Your task to perform on an android device: Search for hotels in Buenos aires Image 0: 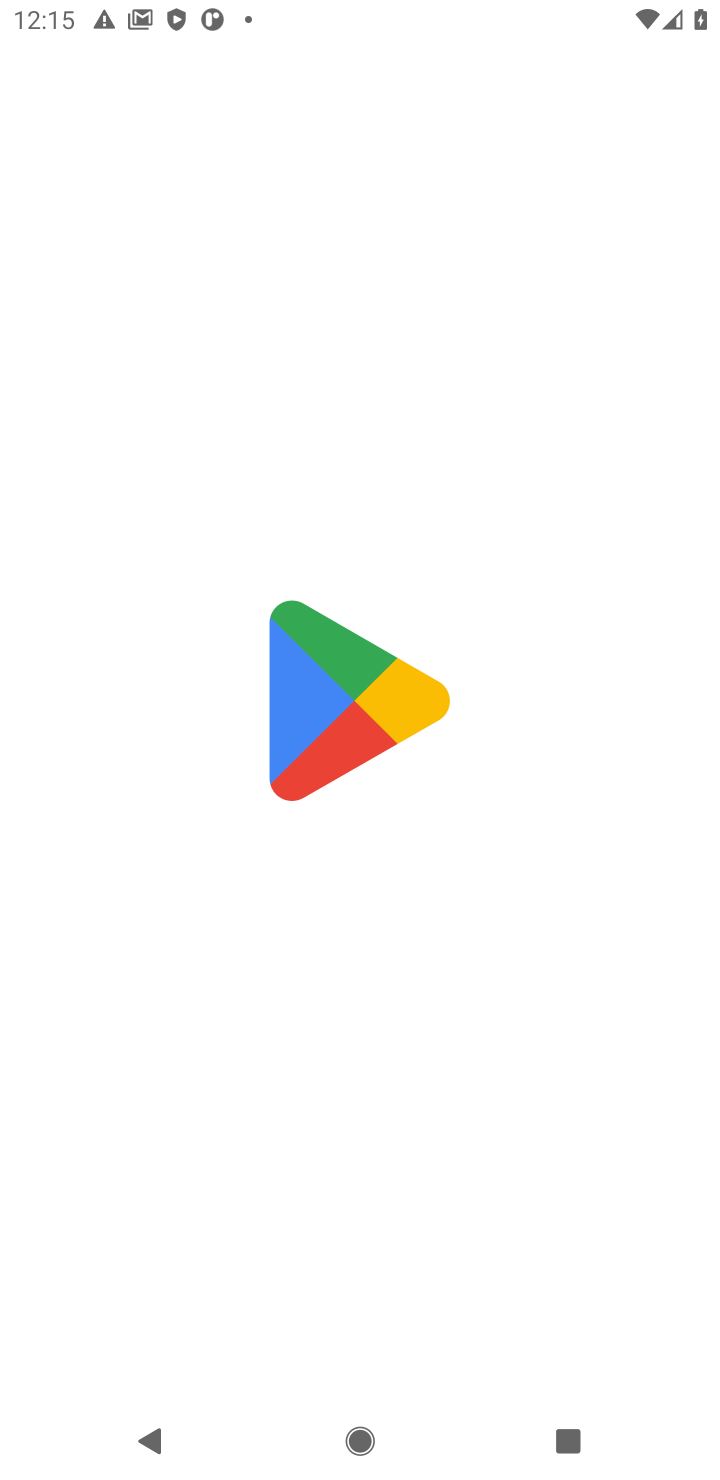
Step 0: press home button
Your task to perform on an android device: Search for hotels in Buenos aires Image 1: 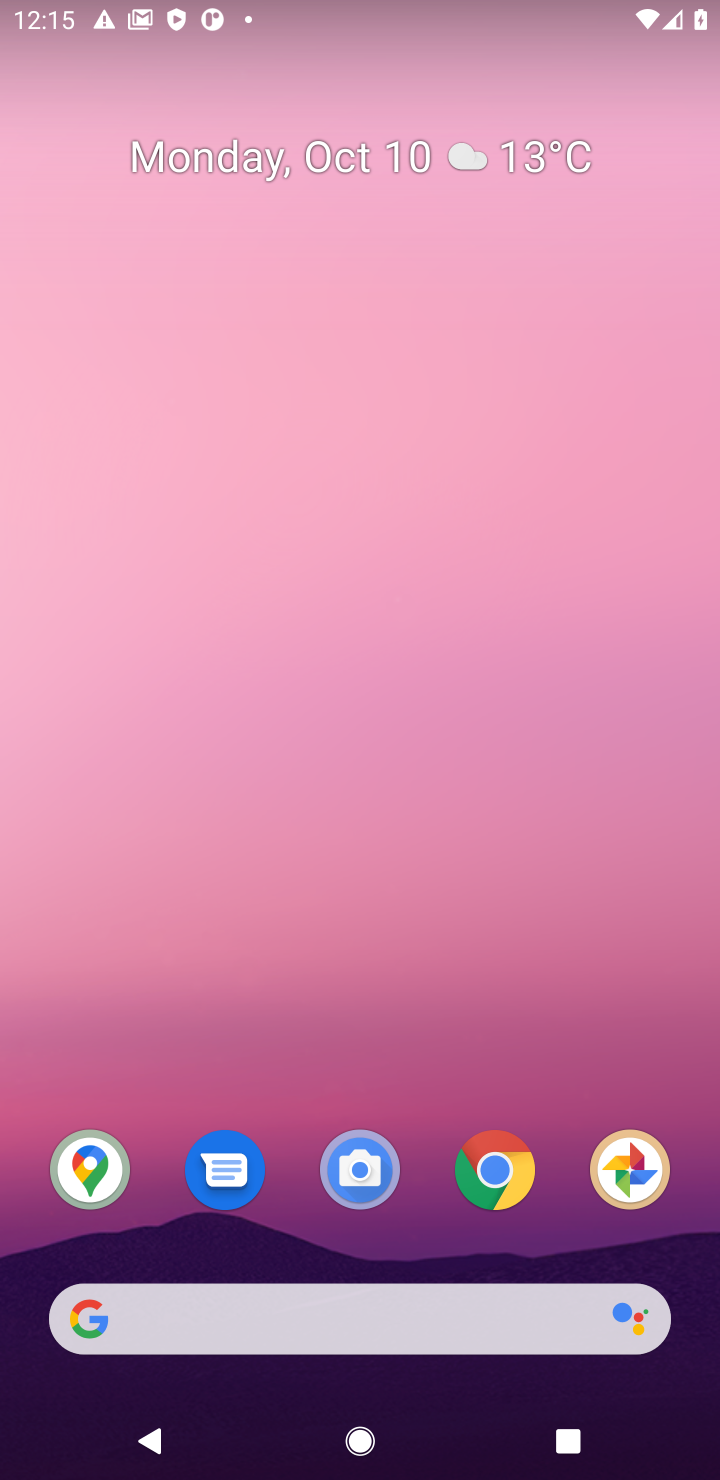
Step 1: click (495, 1166)
Your task to perform on an android device: Search for hotels in Buenos aires Image 2: 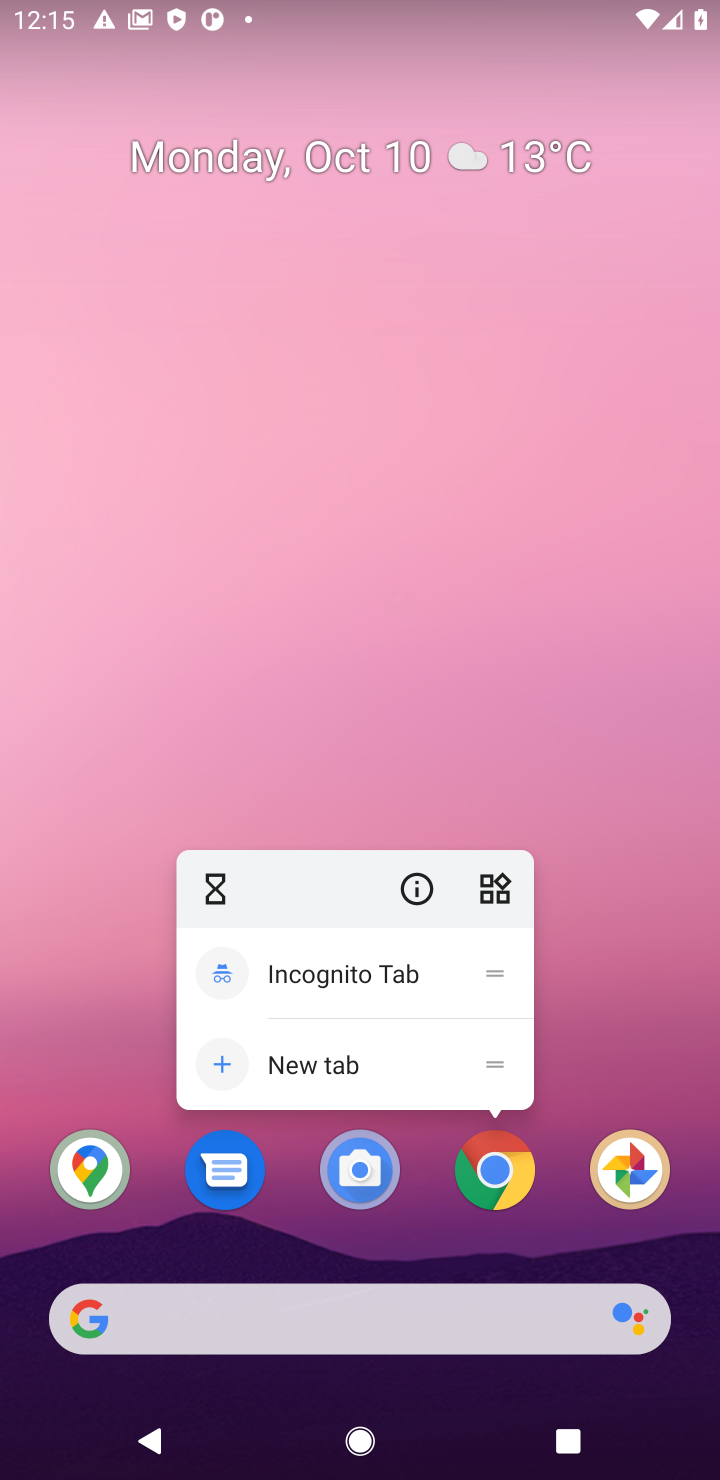
Step 2: click (497, 1173)
Your task to perform on an android device: Search for hotels in Buenos aires Image 3: 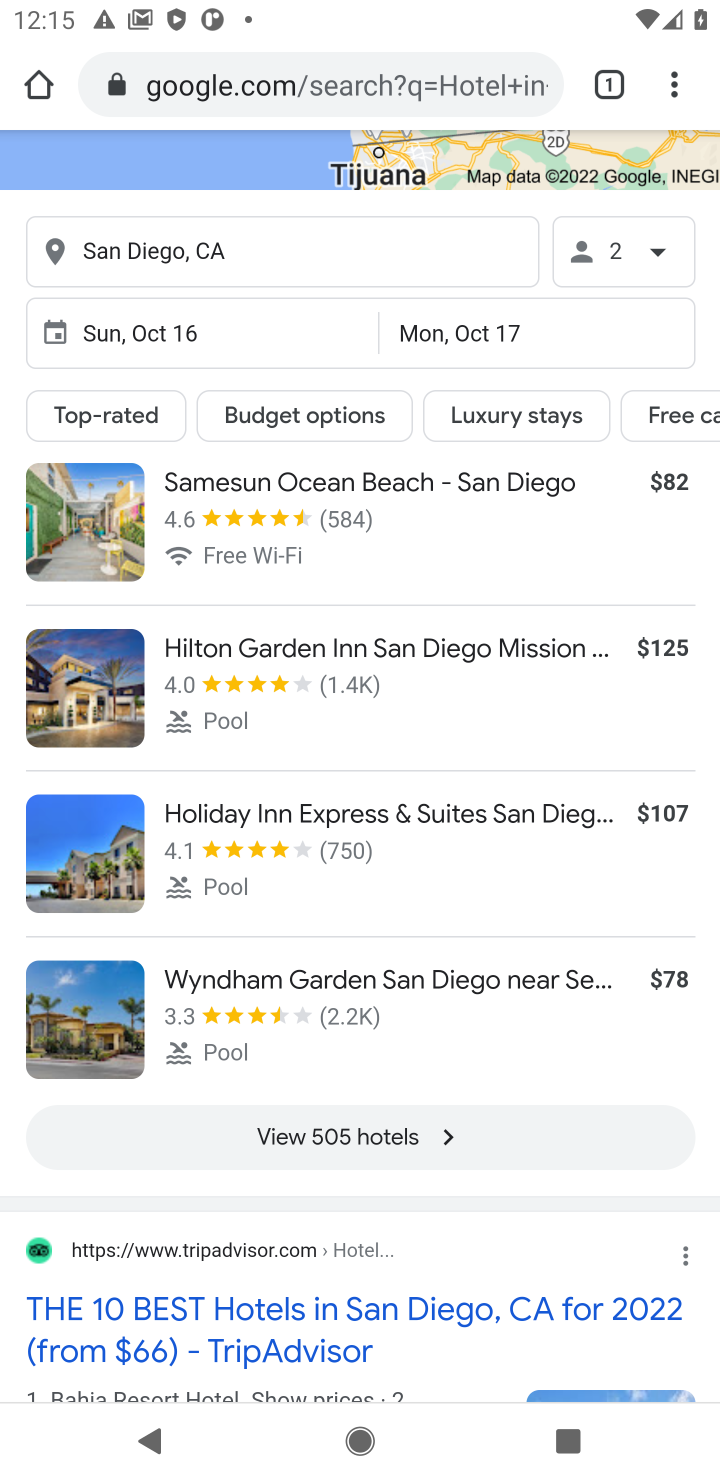
Step 3: click (466, 94)
Your task to perform on an android device: Search for hotels in Buenos aires Image 4: 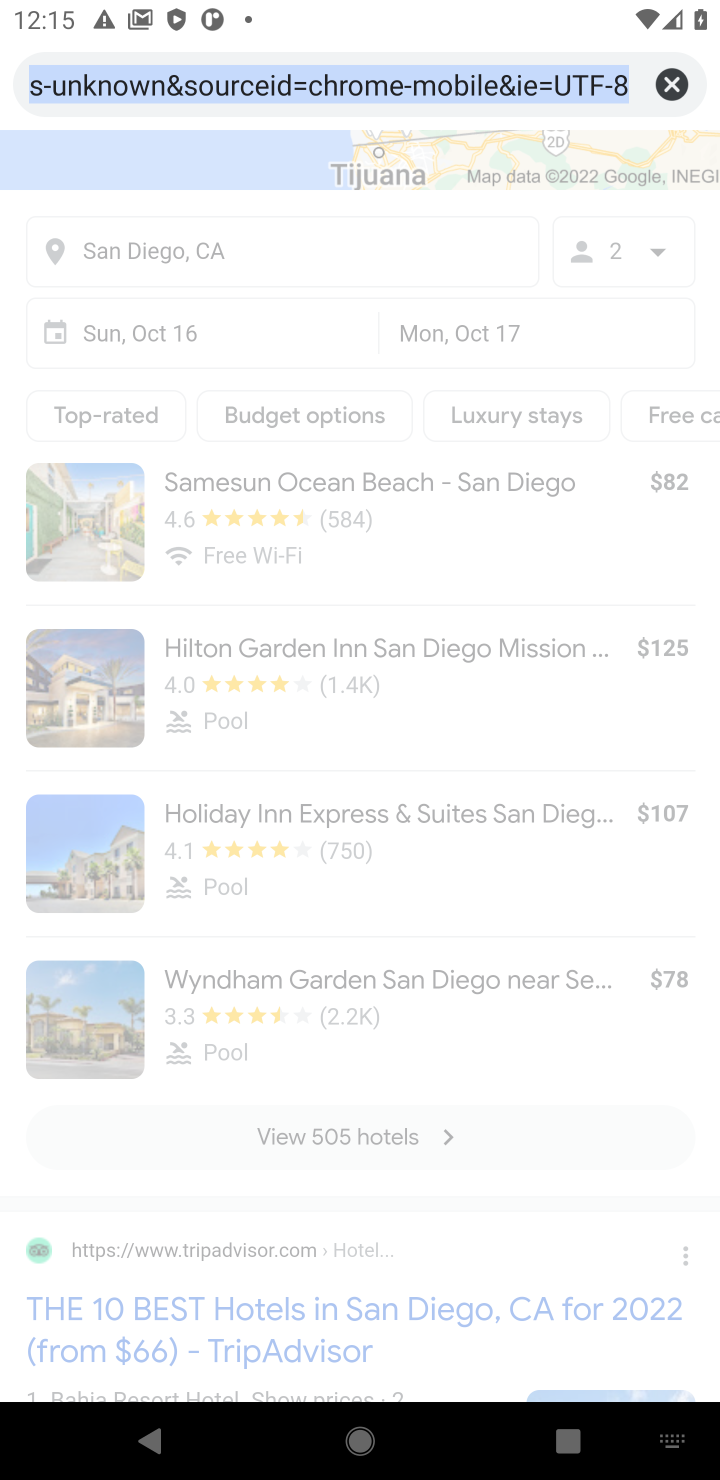
Step 4: click (667, 87)
Your task to perform on an android device: Search for hotels in Buenos aires Image 5: 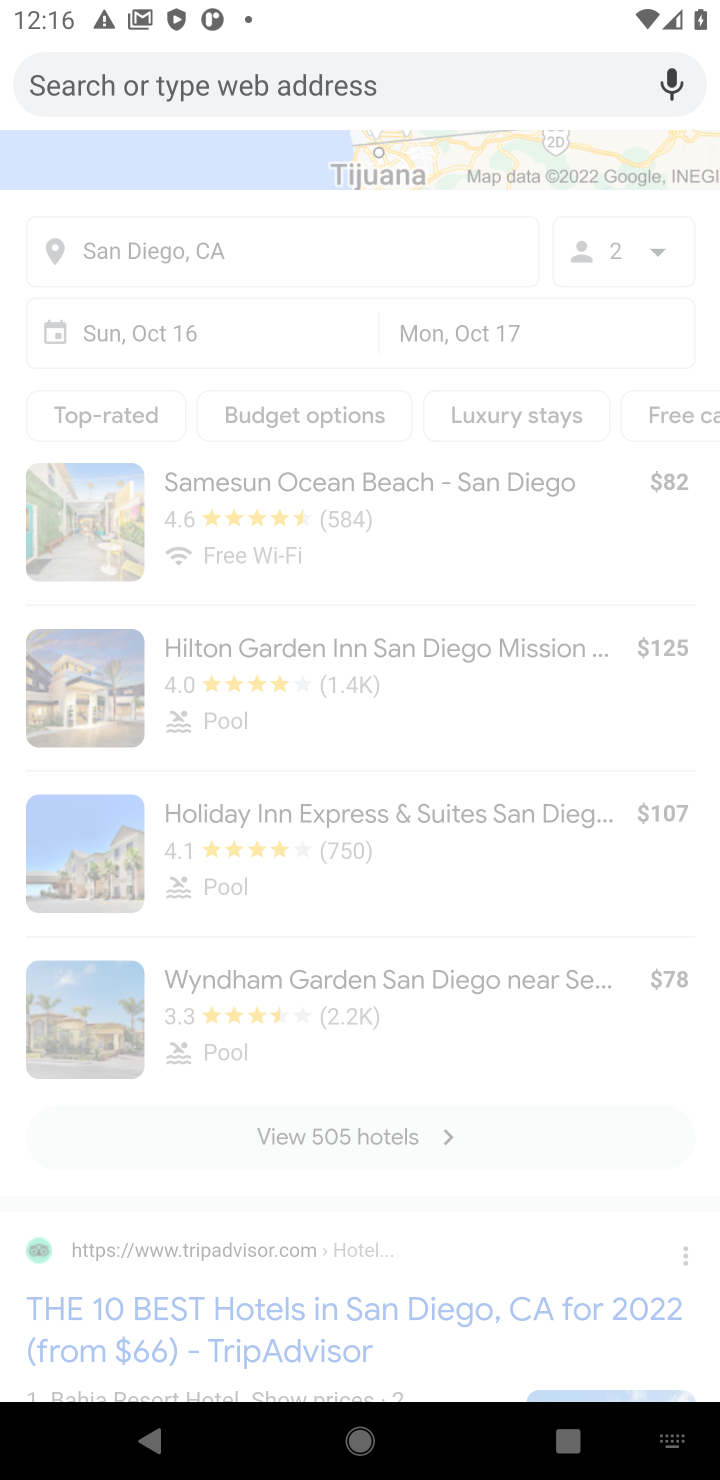
Step 5: type "Hotel in Buenos aires"
Your task to perform on an android device: Search for hotels in Buenos aires Image 6: 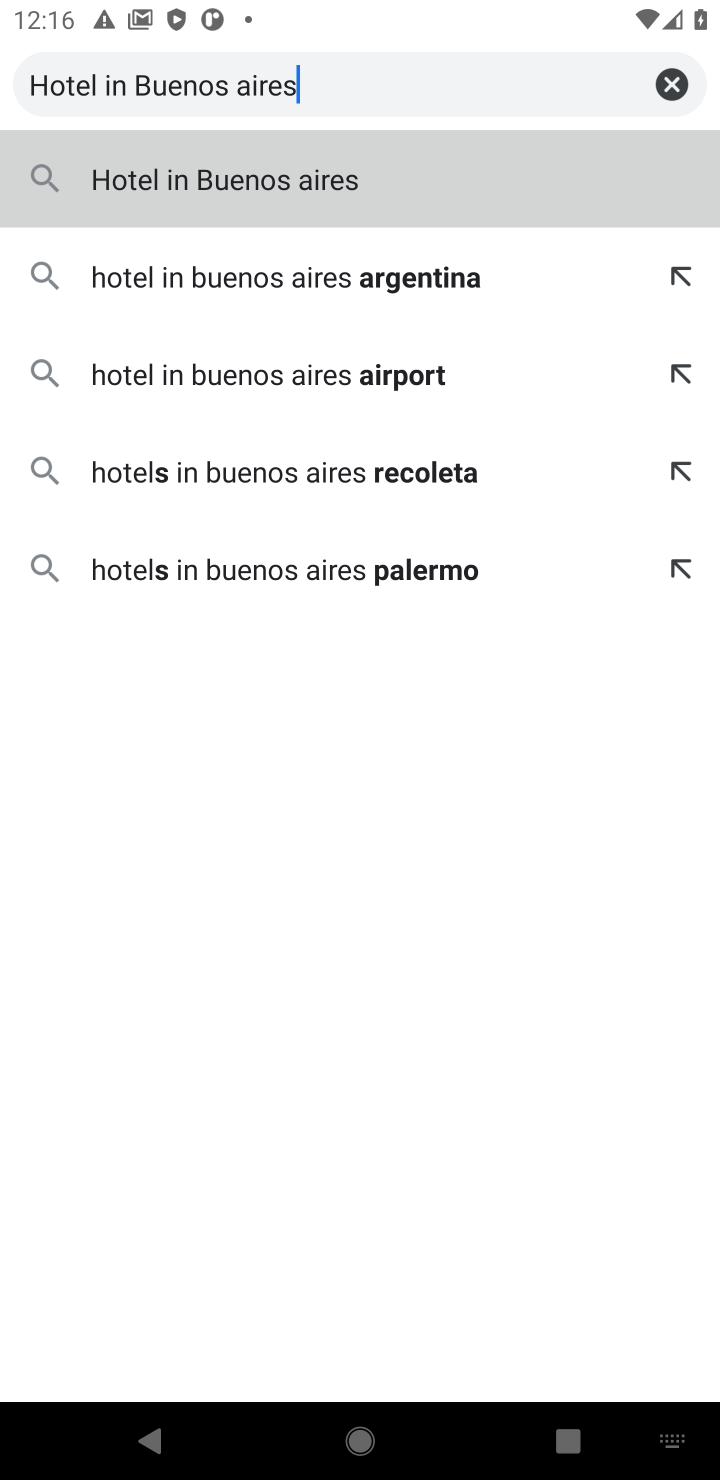
Step 6: click (360, 191)
Your task to perform on an android device: Search for hotels in Buenos aires Image 7: 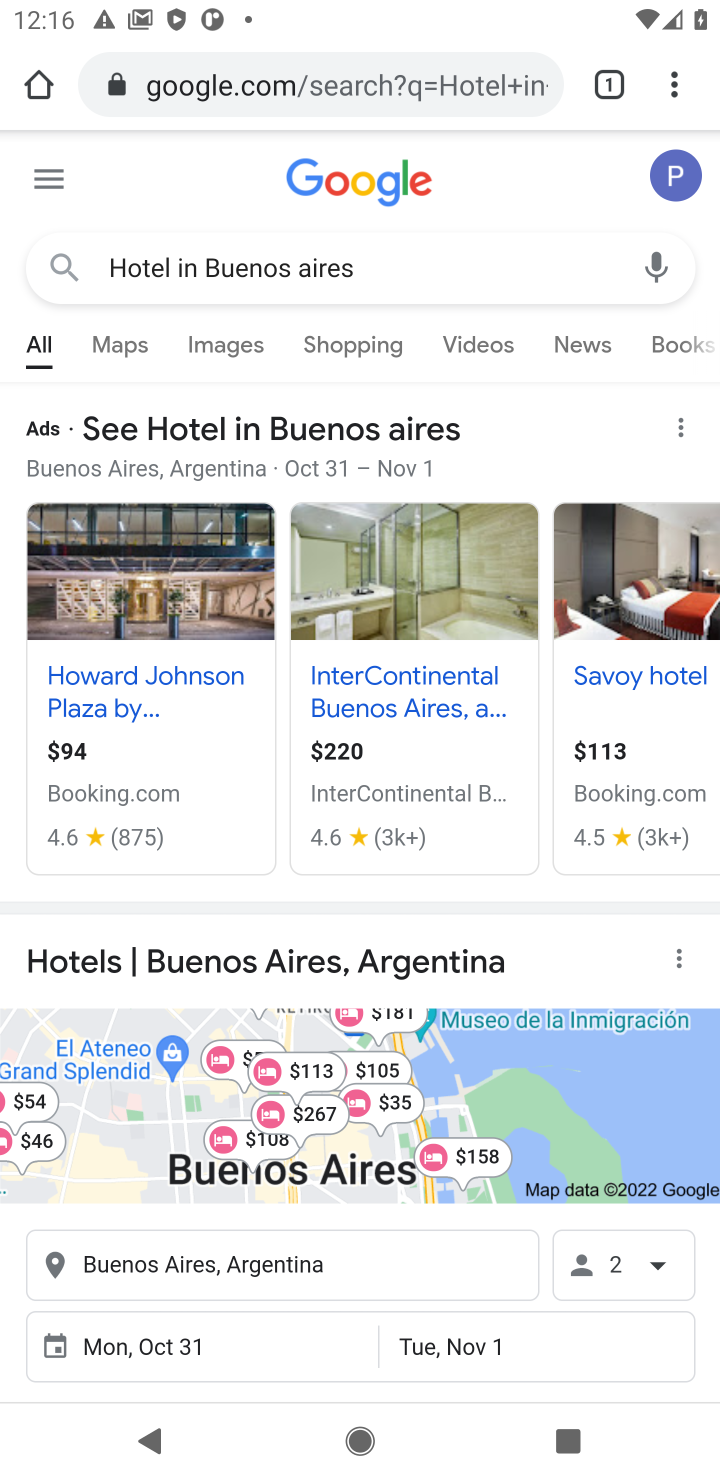
Step 7: task complete